Your task to perform on an android device: Toggle the flashlight Image 0: 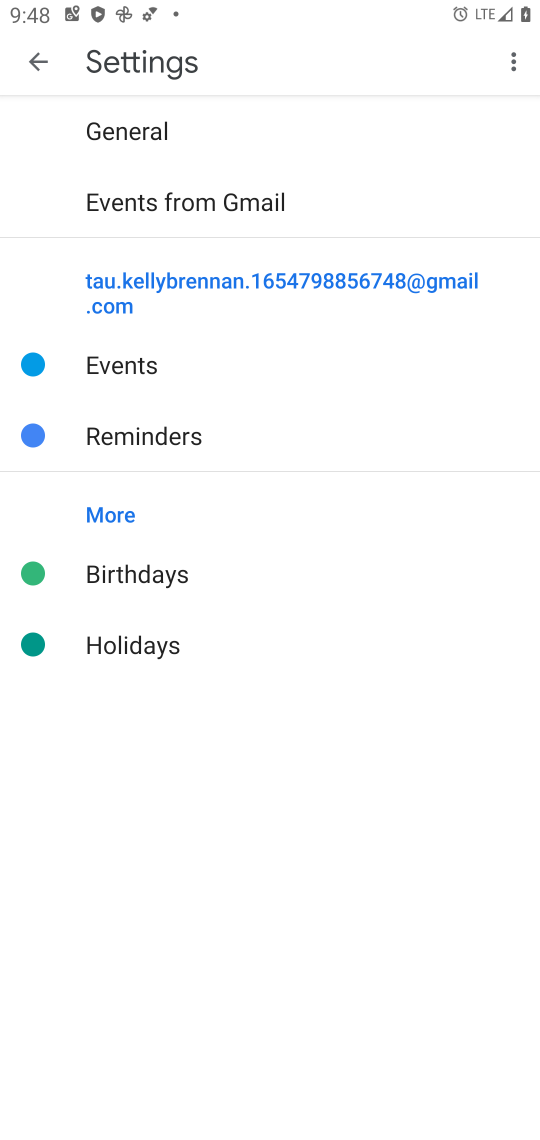
Step 0: press home button
Your task to perform on an android device: Toggle the flashlight Image 1: 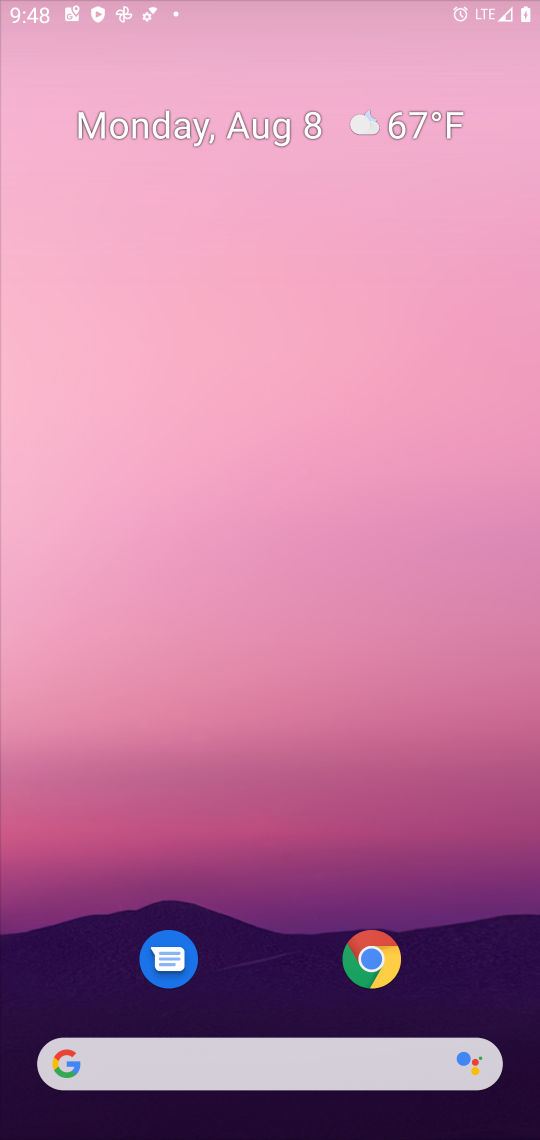
Step 1: drag from (492, 943) to (194, 76)
Your task to perform on an android device: Toggle the flashlight Image 2: 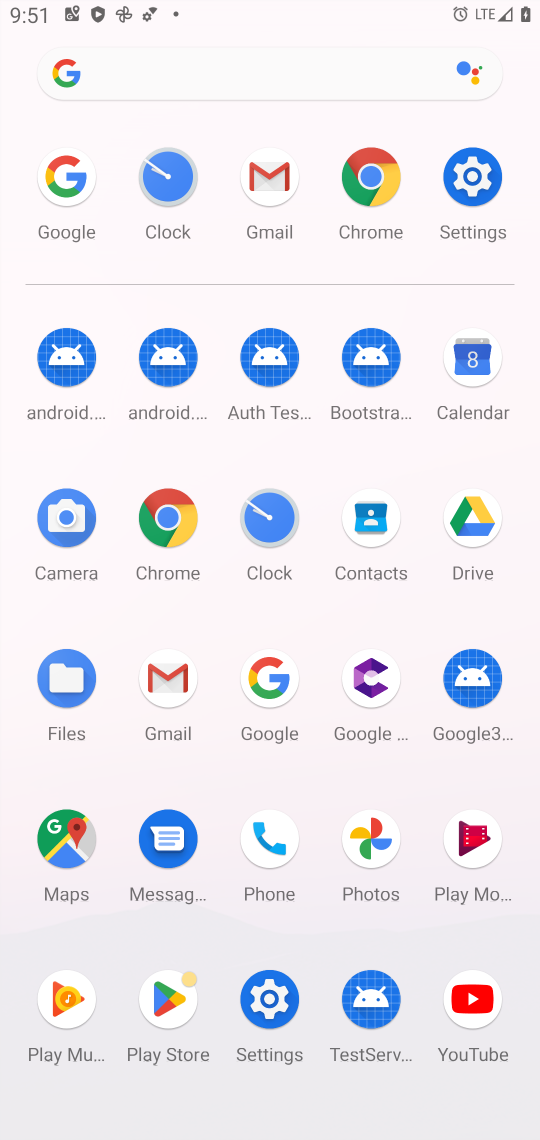
Step 2: click (266, 1008)
Your task to perform on an android device: Toggle the flashlight Image 3: 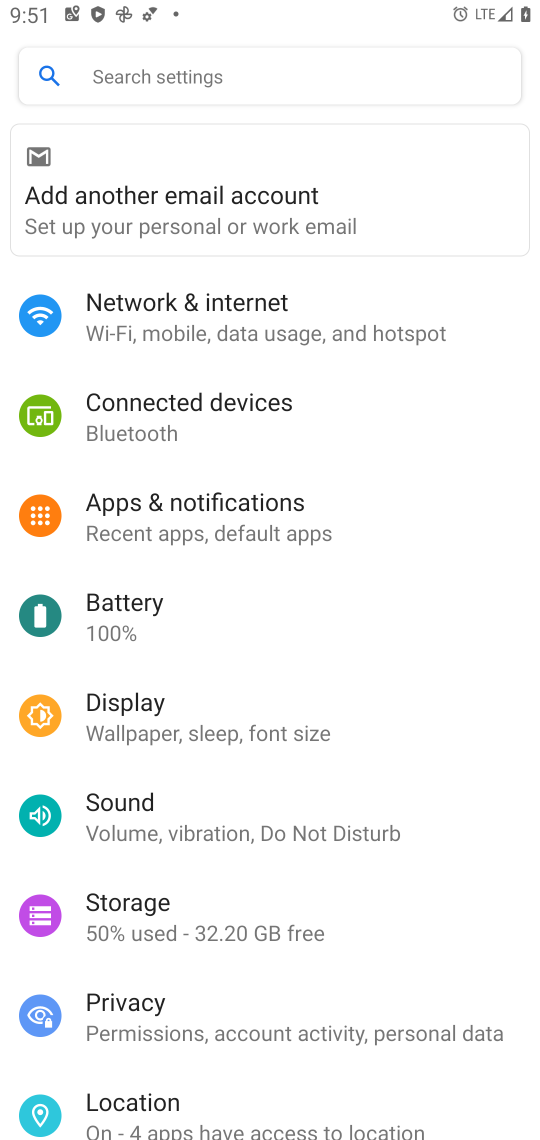
Step 3: task complete